Your task to perform on an android device: What's the weather today? Image 0: 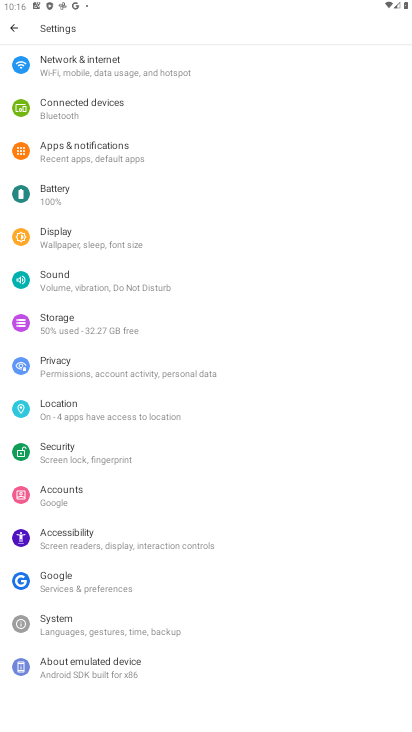
Step 0: press home button
Your task to perform on an android device: What's the weather today? Image 1: 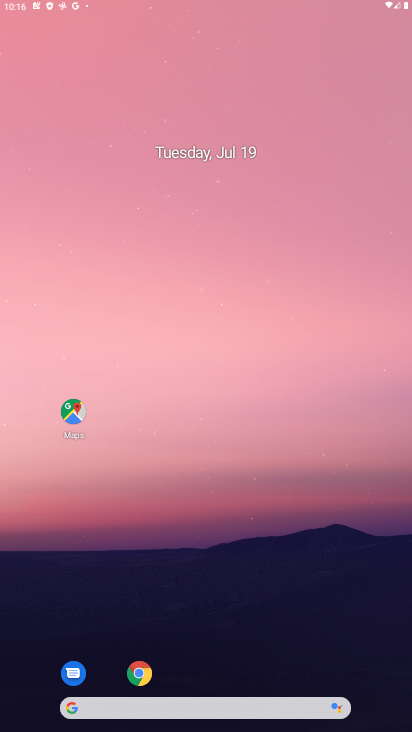
Step 1: task complete